Your task to perform on an android device: empty trash in google photos Image 0: 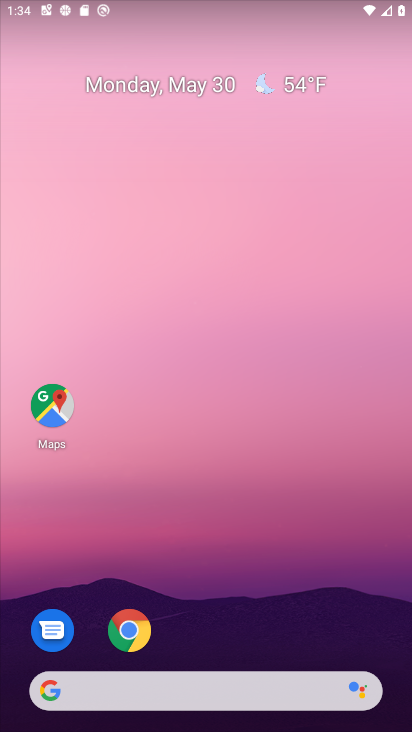
Step 0: press home button
Your task to perform on an android device: empty trash in google photos Image 1: 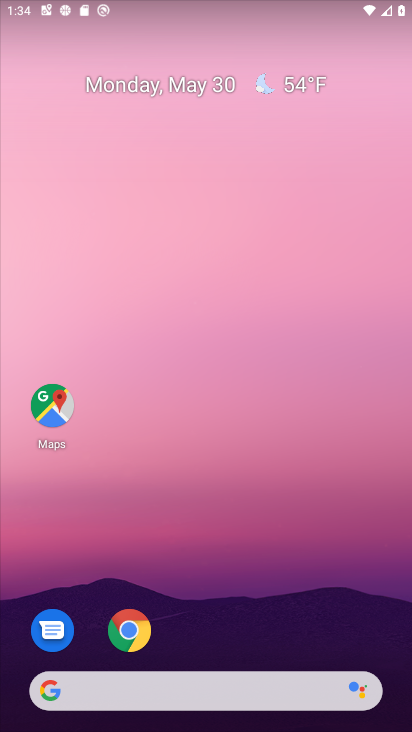
Step 1: drag from (118, 687) to (290, 68)
Your task to perform on an android device: empty trash in google photos Image 2: 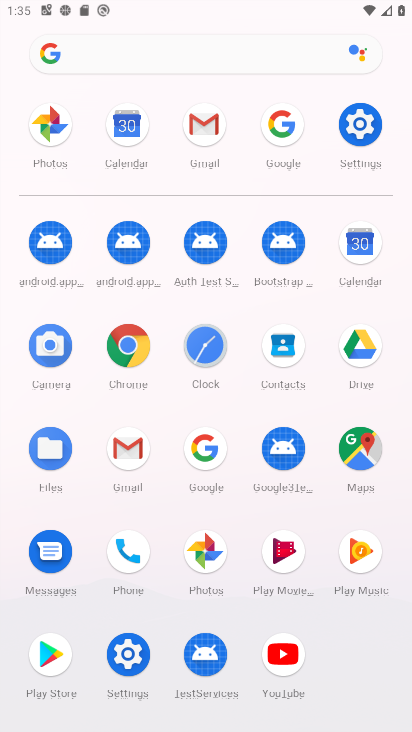
Step 2: click (48, 129)
Your task to perform on an android device: empty trash in google photos Image 3: 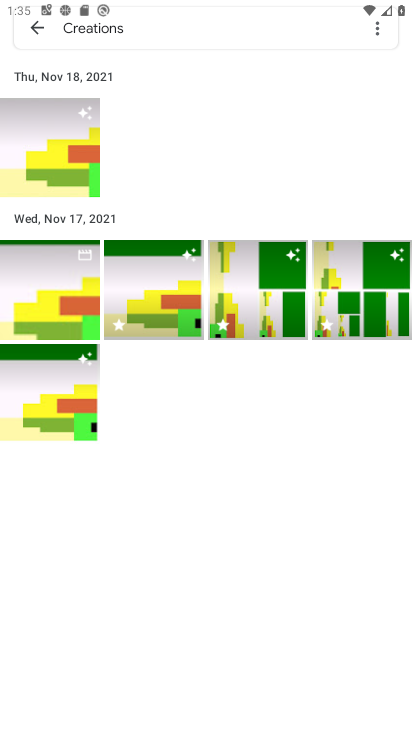
Step 3: click (32, 22)
Your task to perform on an android device: empty trash in google photos Image 4: 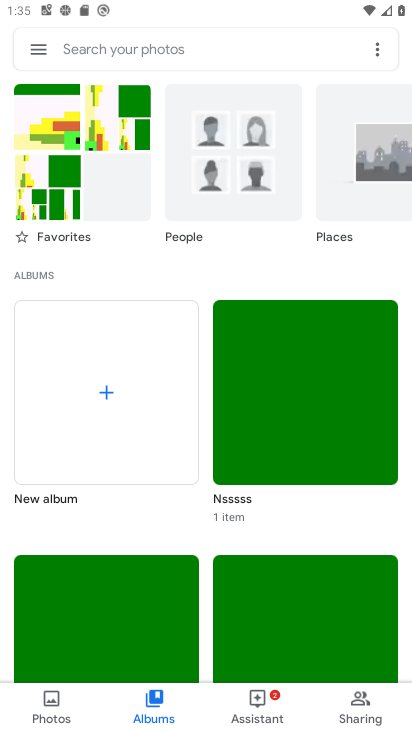
Step 4: click (38, 42)
Your task to perform on an android device: empty trash in google photos Image 5: 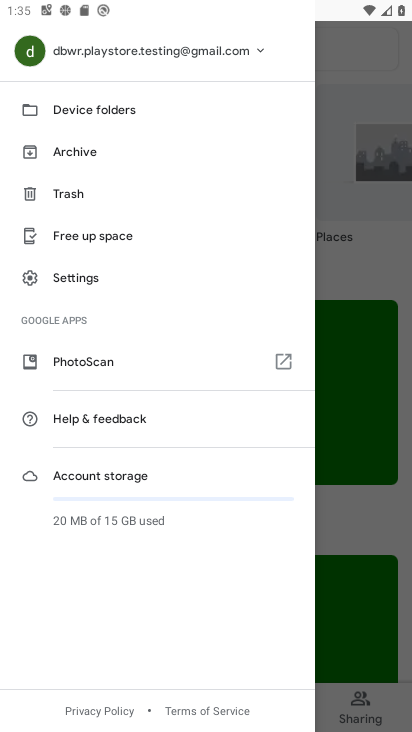
Step 5: click (78, 193)
Your task to perform on an android device: empty trash in google photos Image 6: 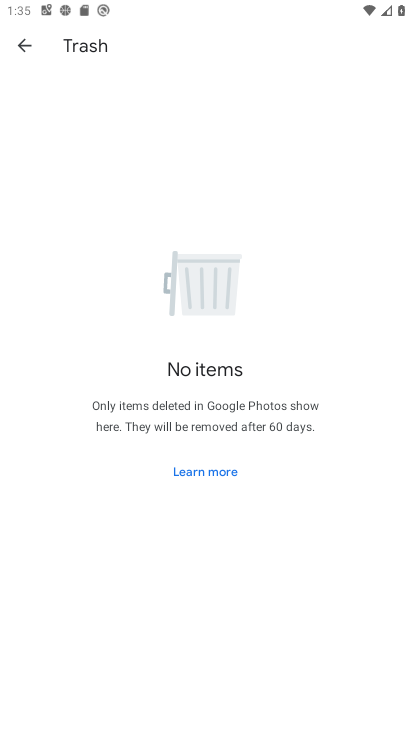
Step 6: task complete